Your task to perform on an android device: What's the weather going to be tomorrow? Image 0: 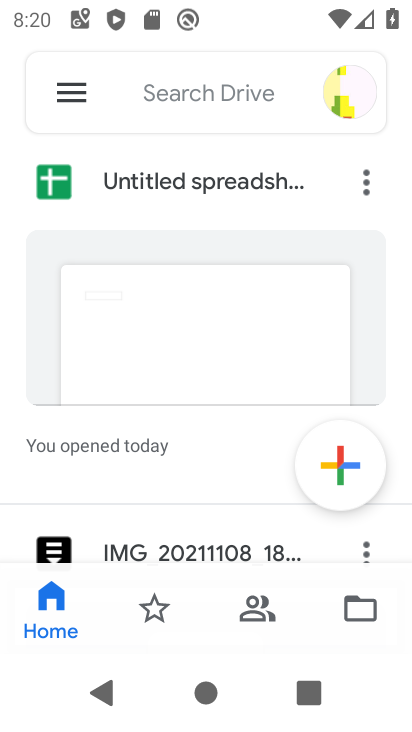
Step 0: press home button
Your task to perform on an android device: What's the weather going to be tomorrow? Image 1: 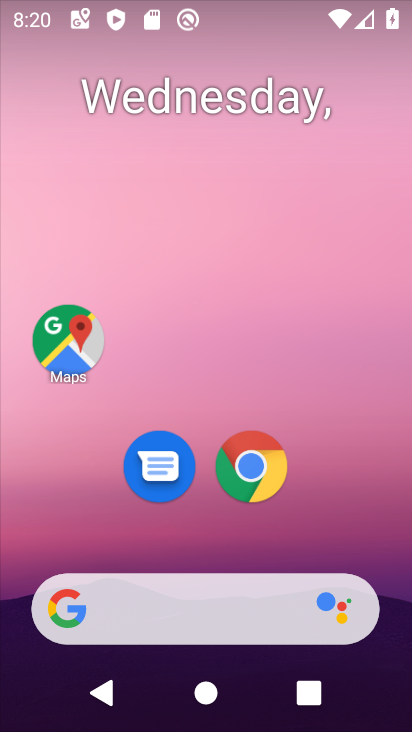
Step 1: drag from (337, 547) to (380, 3)
Your task to perform on an android device: What's the weather going to be tomorrow? Image 2: 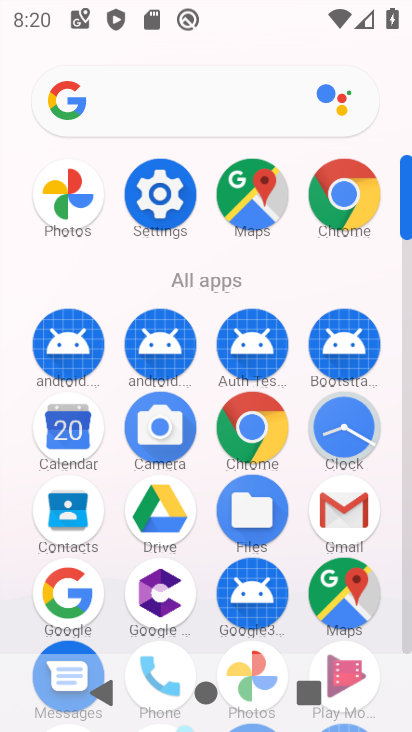
Step 2: click (168, 106)
Your task to perform on an android device: What's the weather going to be tomorrow? Image 3: 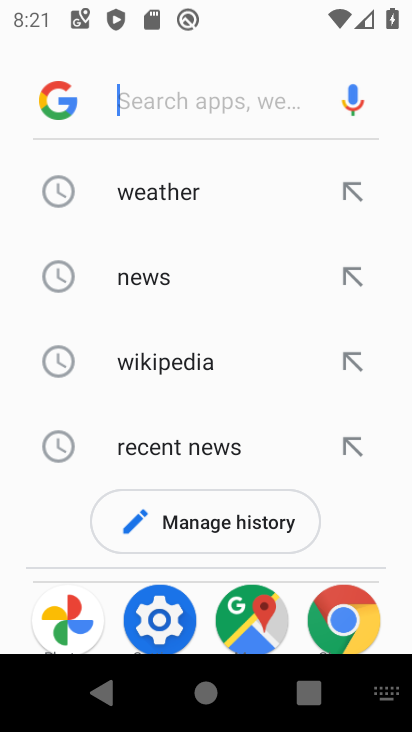
Step 3: type "what's the weather going to be tomorrow"
Your task to perform on an android device: What's the weather going to be tomorrow? Image 4: 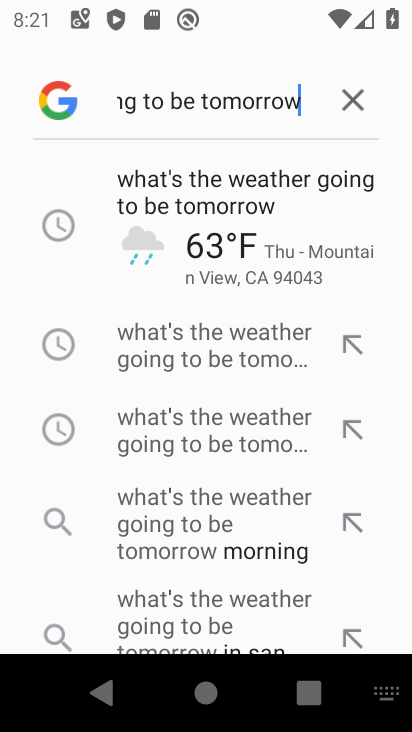
Step 4: click (287, 228)
Your task to perform on an android device: What's the weather going to be tomorrow? Image 5: 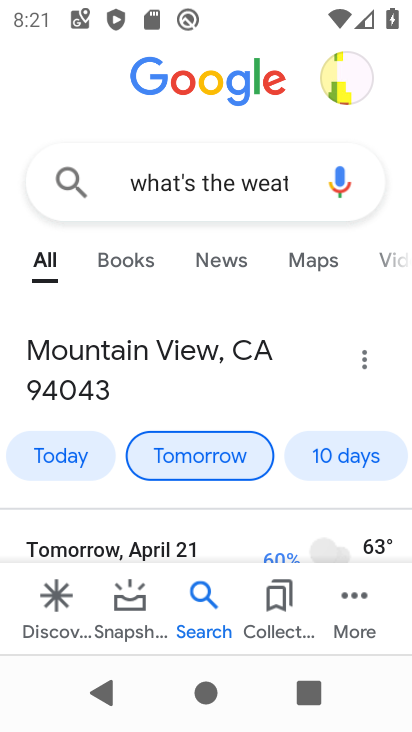
Step 5: task complete